Your task to perform on an android device: Show me the alarms in the clock app Image 0: 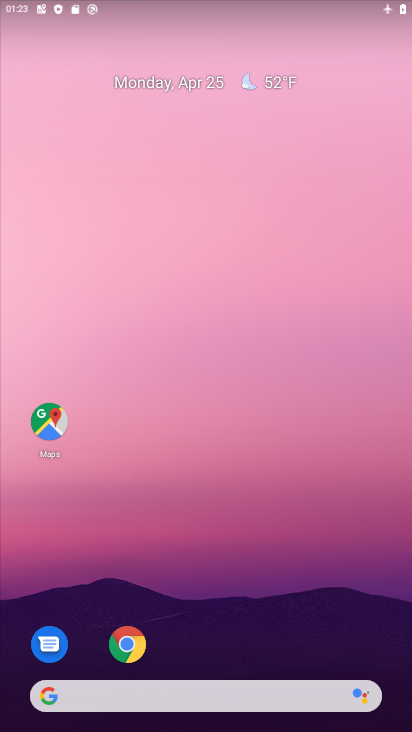
Step 0: drag from (282, 659) to (255, 98)
Your task to perform on an android device: Show me the alarms in the clock app Image 1: 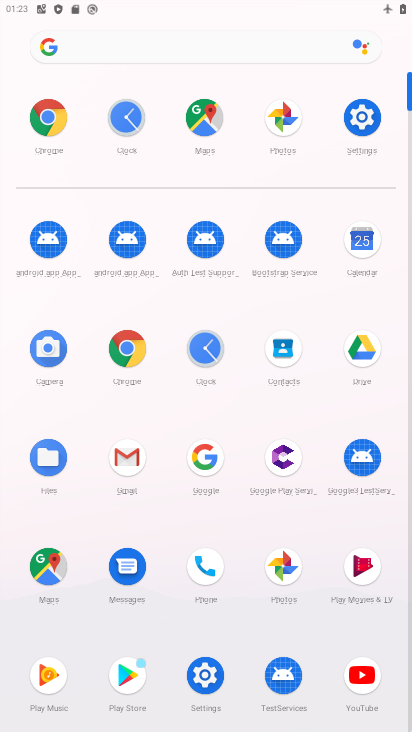
Step 1: click (352, 128)
Your task to perform on an android device: Show me the alarms in the clock app Image 2: 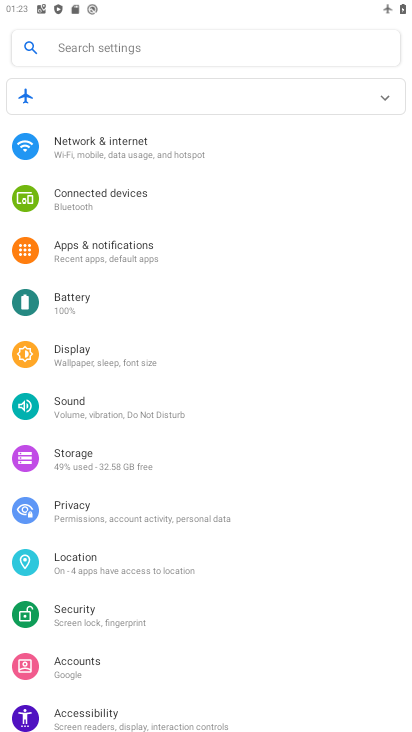
Step 2: press home button
Your task to perform on an android device: Show me the alarms in the clock app Image 3: 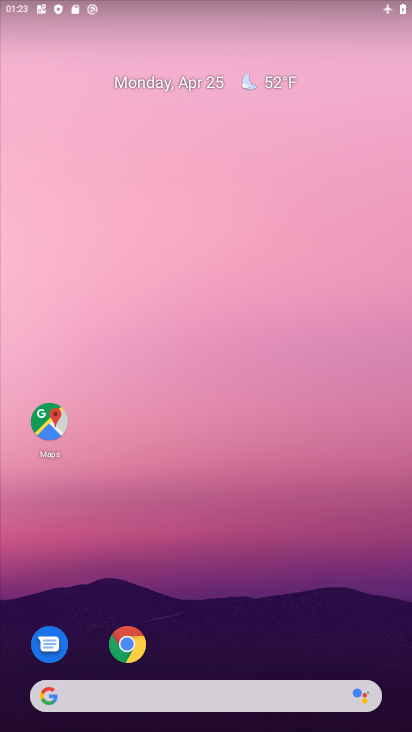
Step 3: drag from (225, 663) to (161, 33)
Your task to perform on an android device: Show me the alarms in the clock app Image 4: 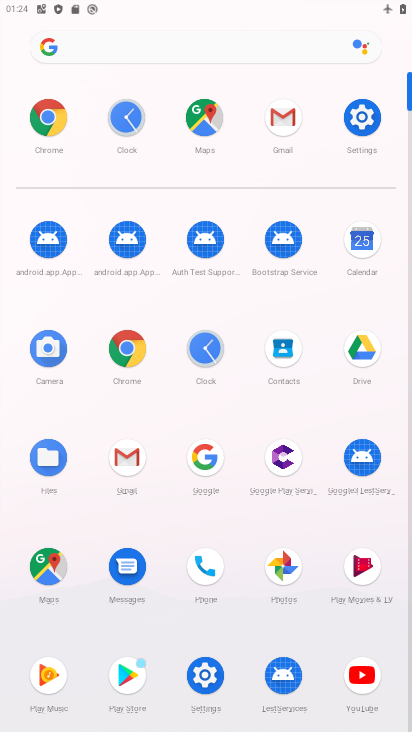
Step 4: click (121, 124)
Your task to perform on an android device: Show me the alarms in the clock app Image 5: 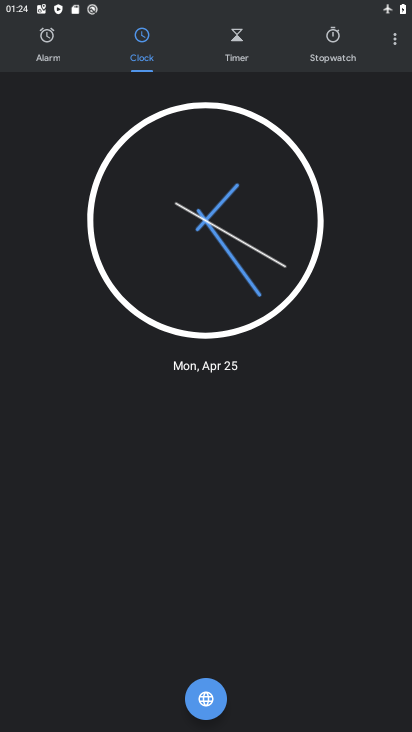
Step 5: click (51, 64)
Your task to perform on an android device: Show me the alarms in the clock app Image 6: 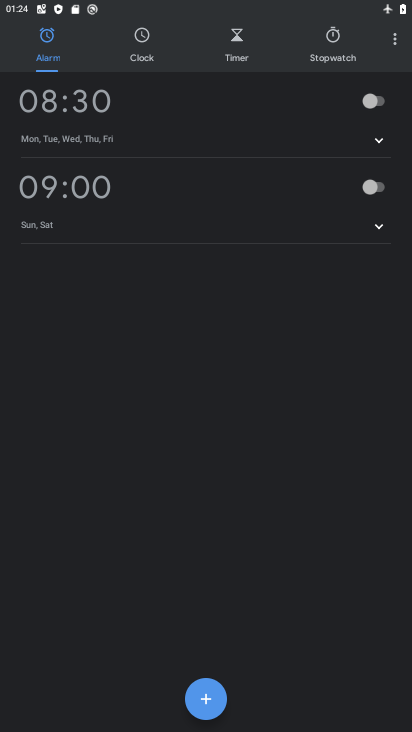
Step 6: task complete